Your task to perform on an android device: uninstall "LinkedIn" Image 0: 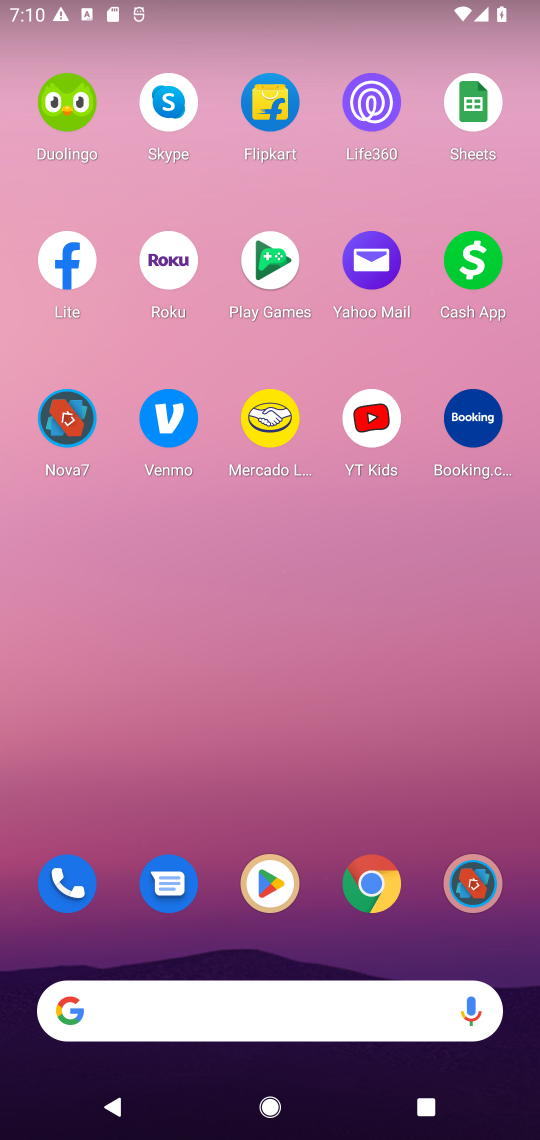
Step 0: click (261, 888)
Your task to perform on an android device: uninstall "LinkedIn" Image 1: 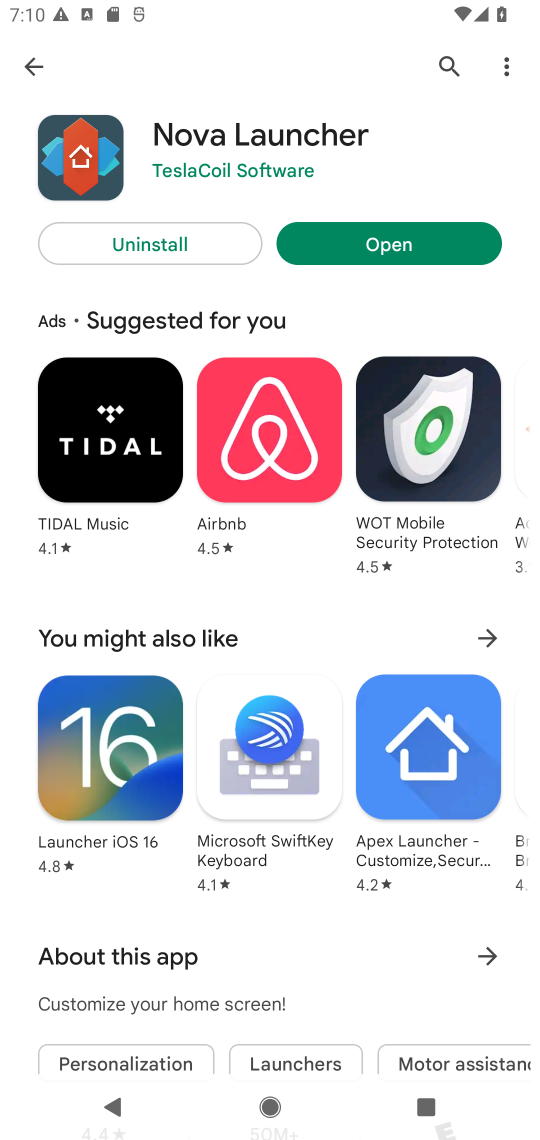
Step 1: click (169, 244)
Your task to perform on an android device: uninstall "LinkedIn" Image 2: 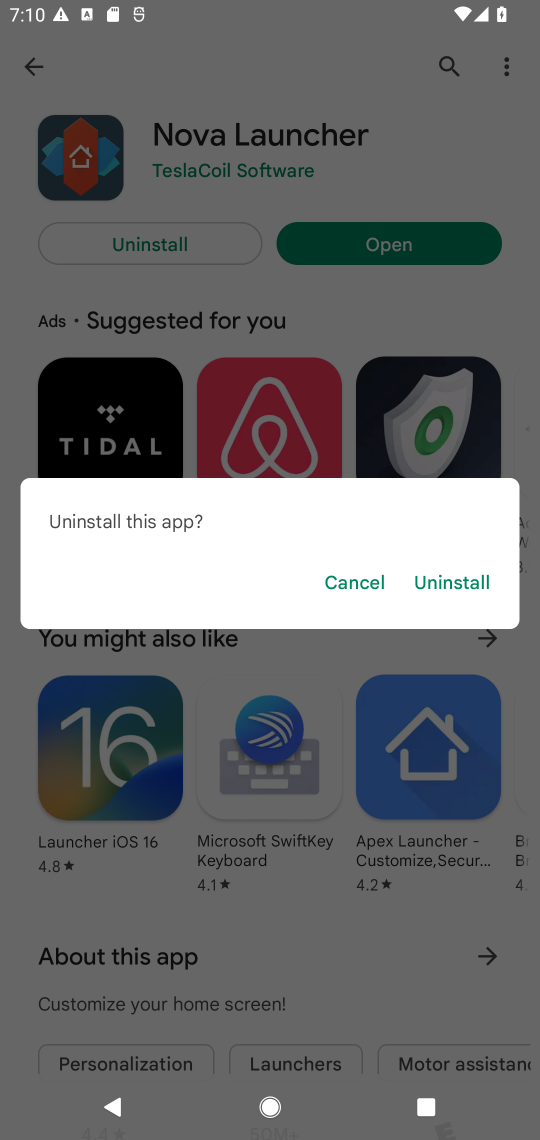
Step 2: click (467, 579)
Your task to perform on an android device: uninstall "LinkedIn" Image 3: 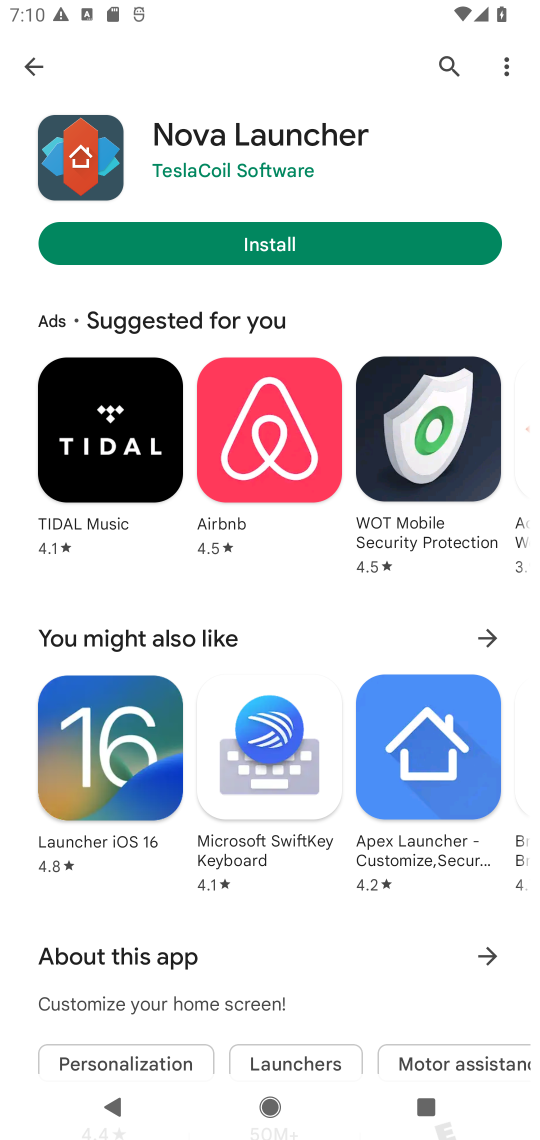
Step 3: task complete